Your task to perform on an android device: see sites visited before in the chrome app Image 0: 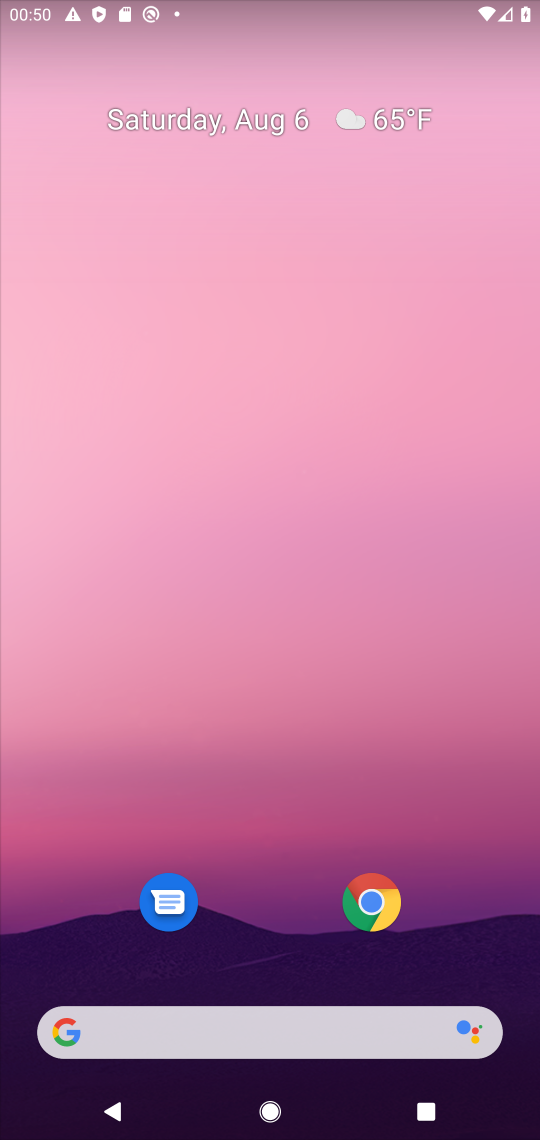
Step 0: click (369, 901)
Your task to perform on an android device: see sites visited before in the chrome app Image 1: 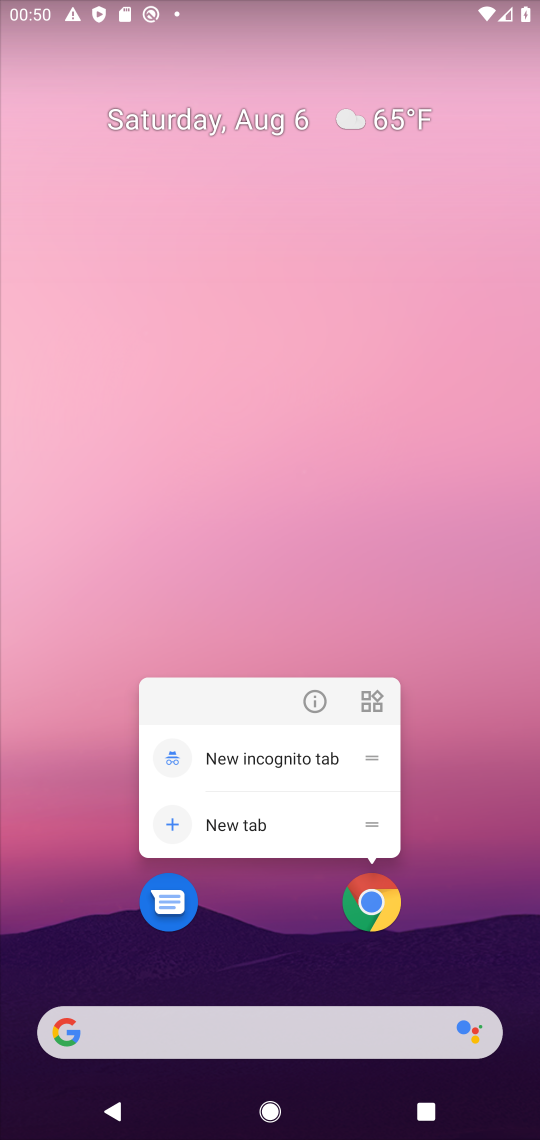
Step 1: click (372, 893)
Your task to perform on an android device: see sites visited before in the chrome app Image 2: 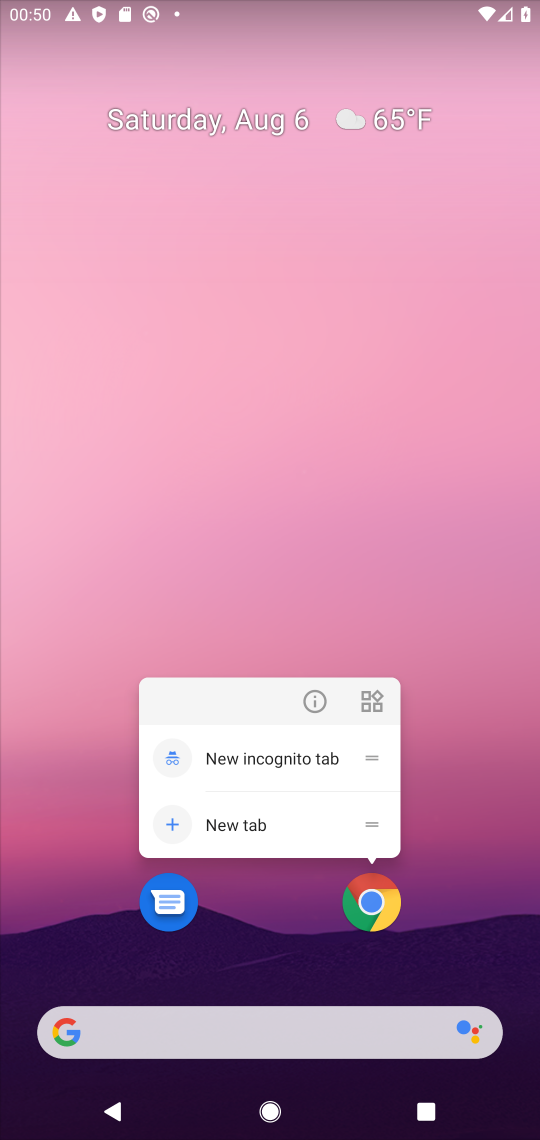
Step 2: click (373, 900)
Your task to perform on an android device: see sites visited before in the chrome app Image 3: 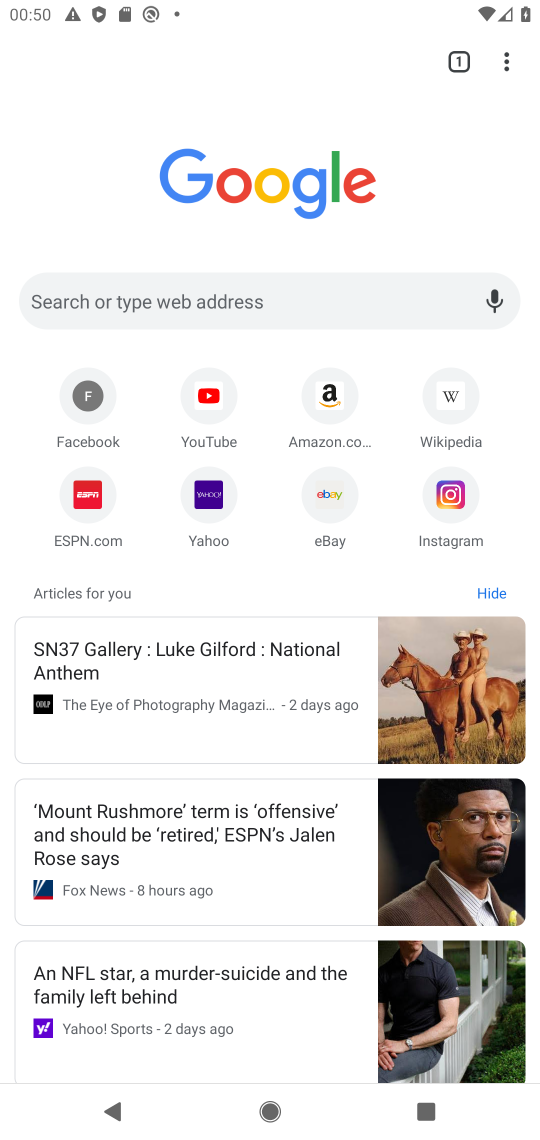
Step 3: click (511, 57)
Your task to perform on an android device: see sites visited before in the chrome app Image 4: 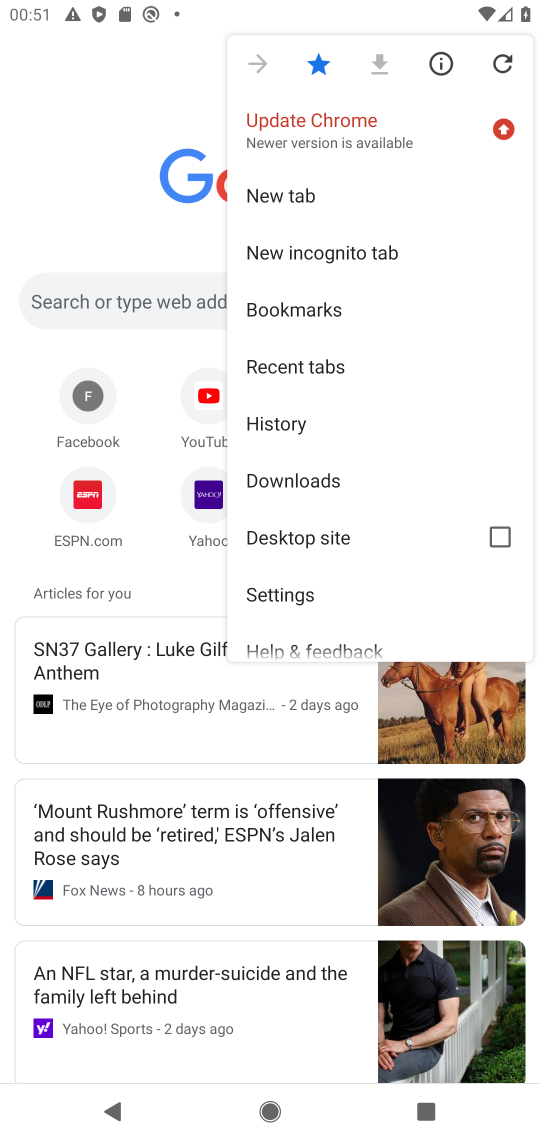
Step 4: click (299, 360)
Your task to perform on an android device: see sites visited before in the chrome app Image 5: 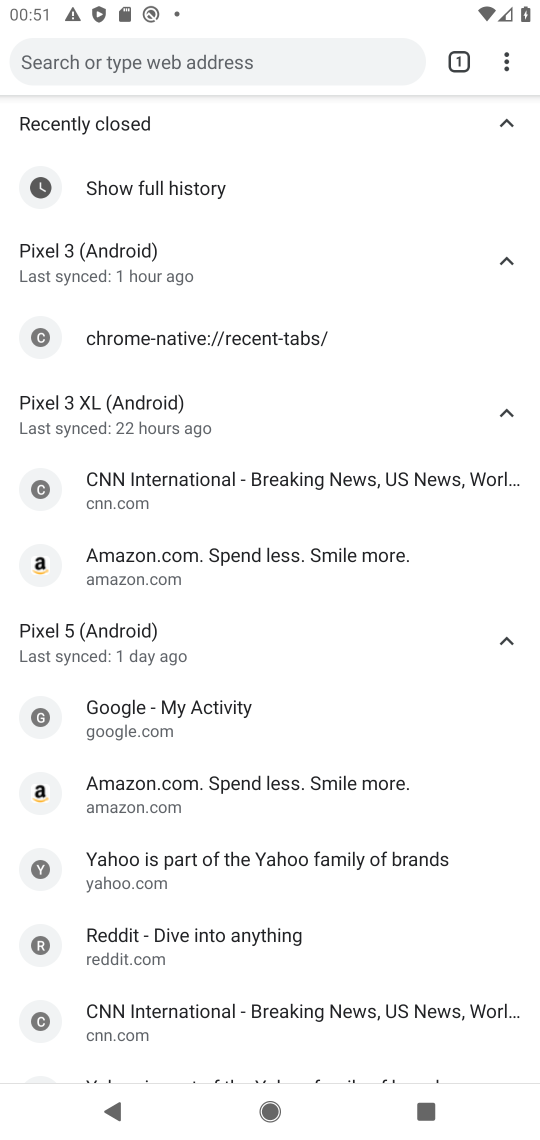
Step 5: task complete